Your task to perform on an android device: Search for vegetarian restaurants on Maps Image 0: 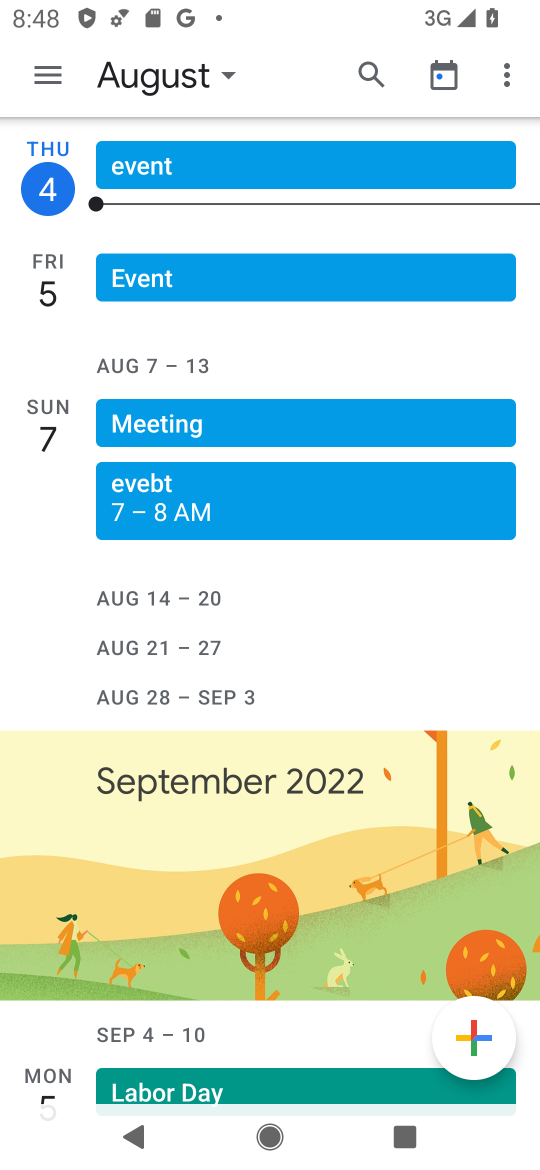
Step 0: press home button
Your task to perform on an android device: Search for vegetarian restaurants on Maps Image 1: 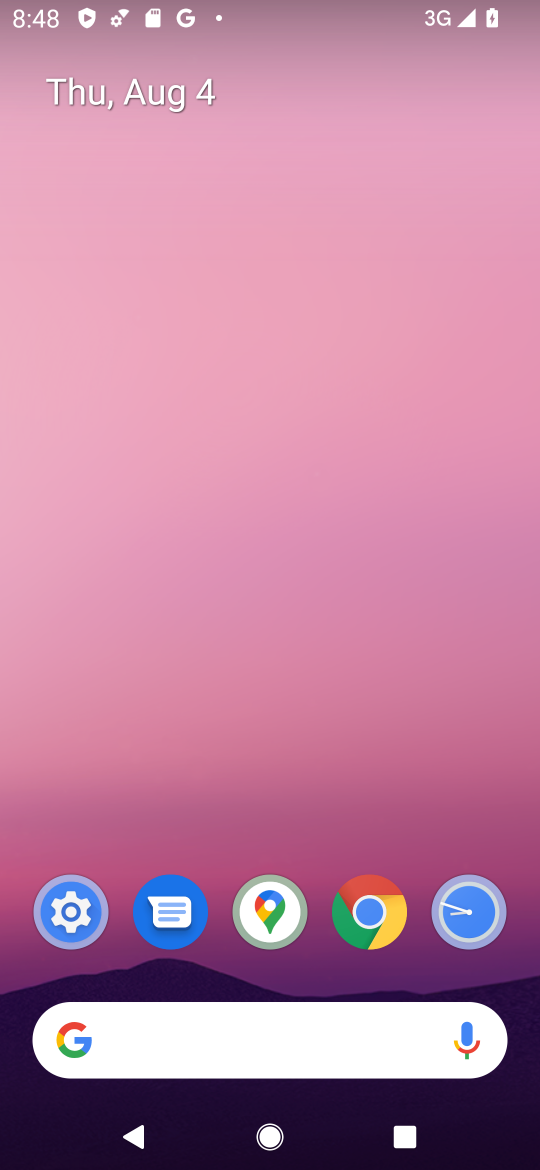
Step 1: click (284, 920)
Your task to perform on an android device: Search for vegetarian restaurants on Maps Image 2: 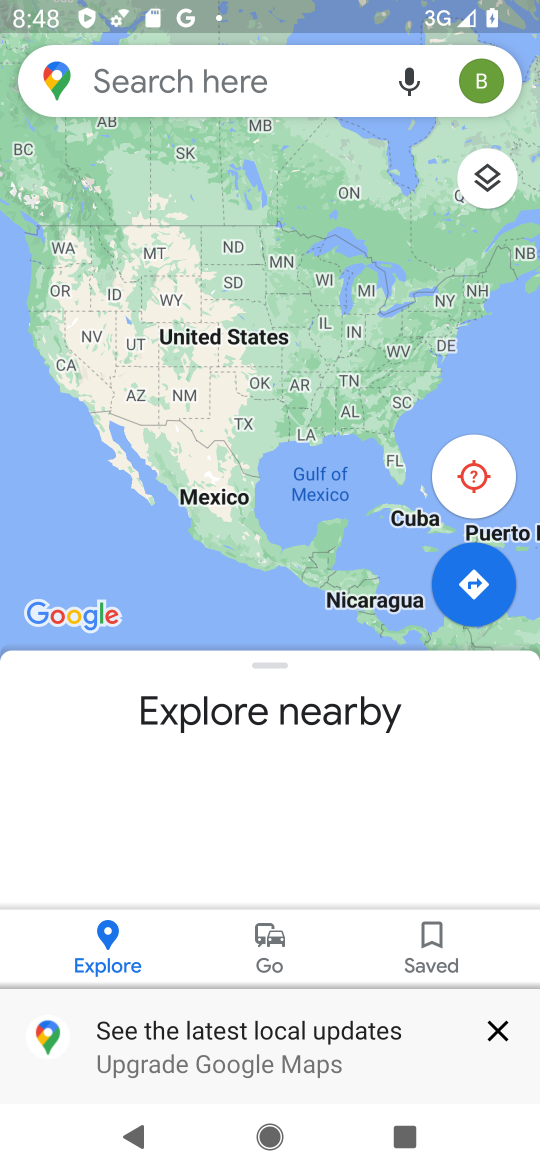
Step 2: click (264, 91)
Your task to perform on an android device: Search for vegetarian restaurants on Maps Image 3: 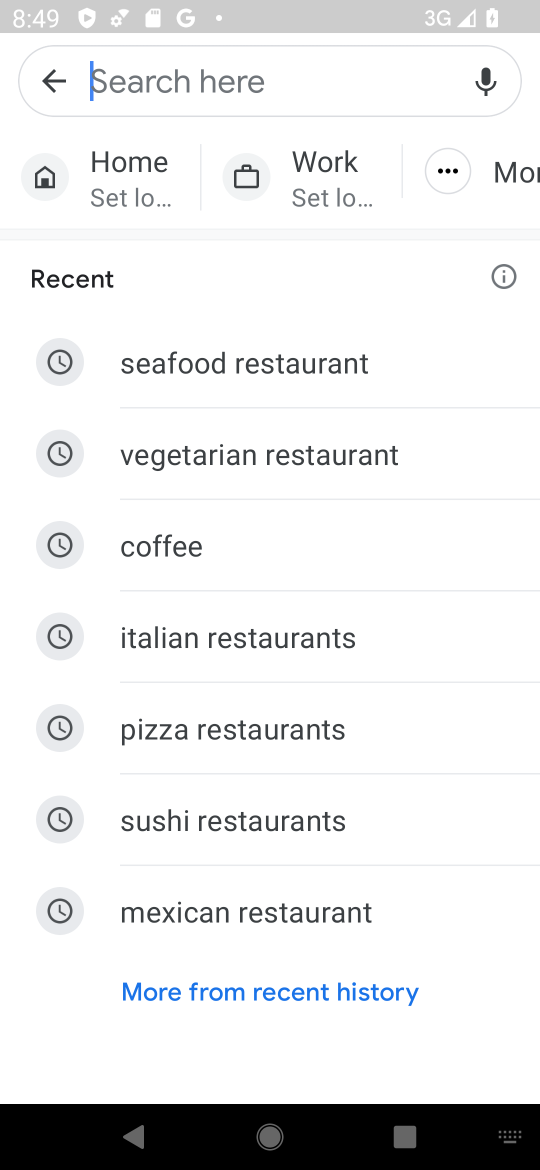
Step 3: click (335, 459)
Your task to perform on an android device: Search for vegetarian restaurants on Maps Image 4: 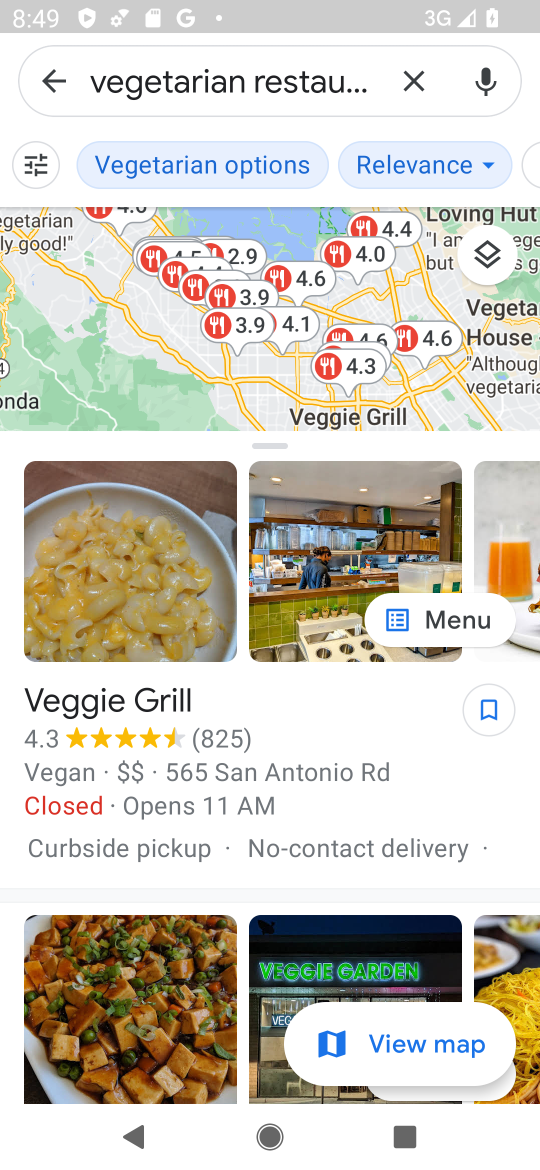
Step 4: task complete